Your task to perform on an android device: turn off improve location accuracy Image 0: 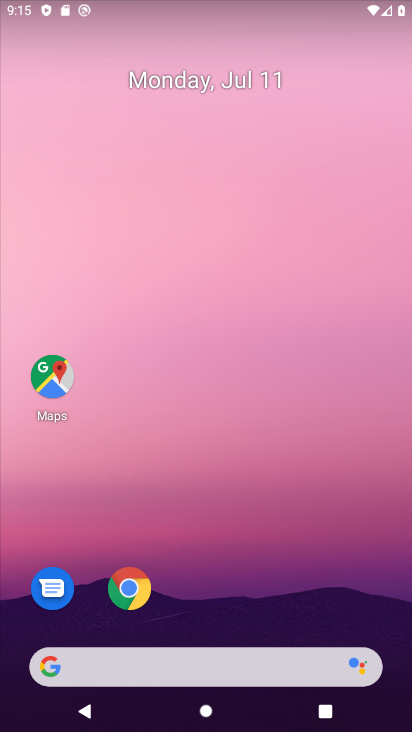
Step 0: drag from (236, 606) to (241, 50)
Your task to perform on an android device: turn off improve location accuracy Image 1: 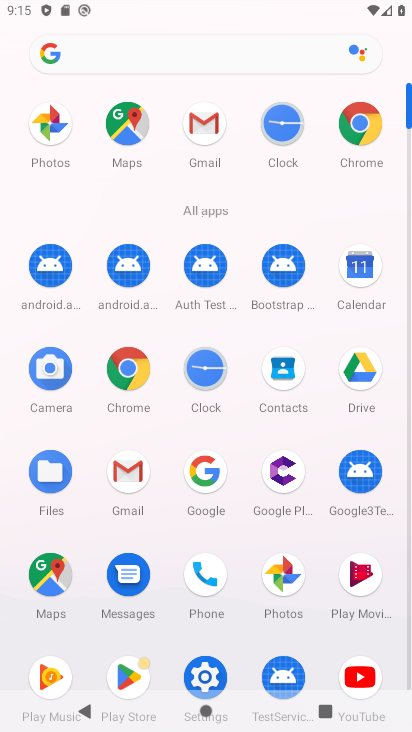
Step 1: click (214, 662)
Your task to perform on an android device: turn off improve location accuracy Image 2: 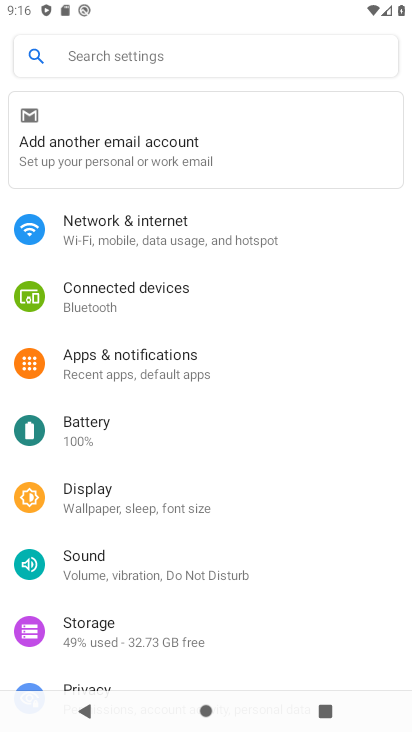
Step 2: drag from (124, 613) to (144, 485)
Your task to perform on an android device: turn off improve location accuracy Image 3: 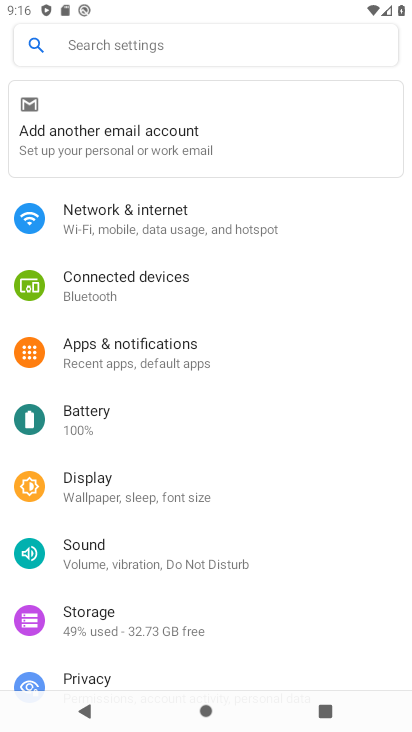
Step 3: drag from (165, 658) to (164, 266)
Your task to perform on an android device: turn off improve location accuracy Image 4: 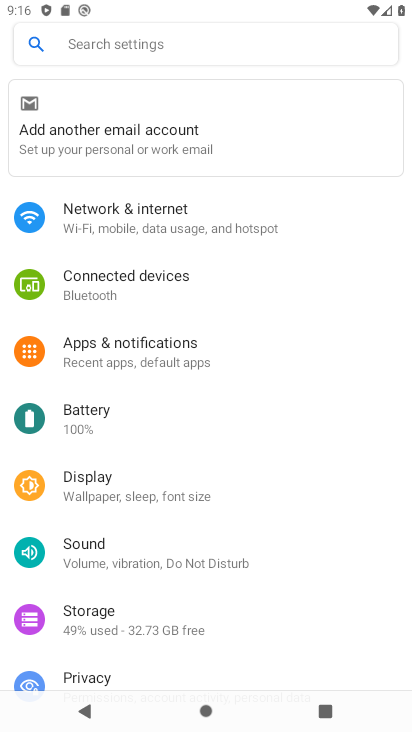
Step 4: drag from (173, 592) to (173, 312)
Your task to perform on an android device: turn off improve location accuracy Image 5: 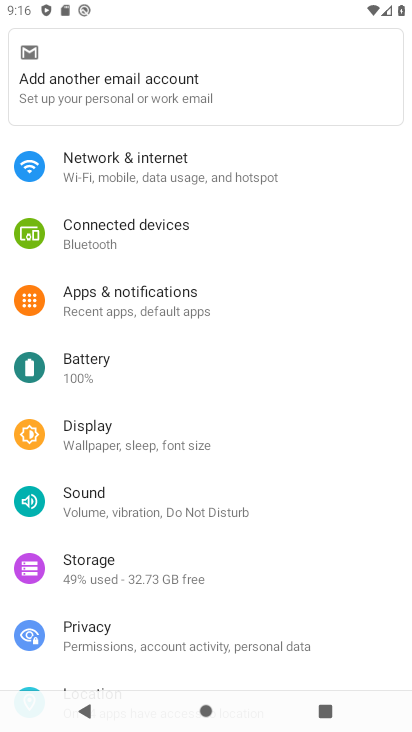
Step 5: drag from (159, 576) to (144, 321)
Your task to perform on an android device: turn off improve location accuracy Image 6: 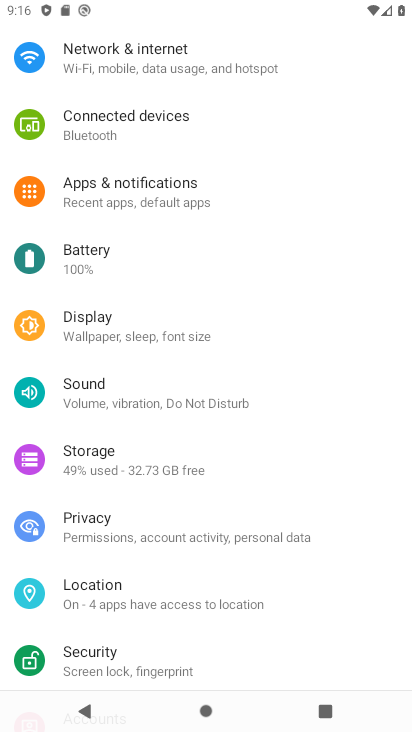
Step 6: click (155, 582)
Your task to perform on an android device: turn off improve location accuracy Image 7: 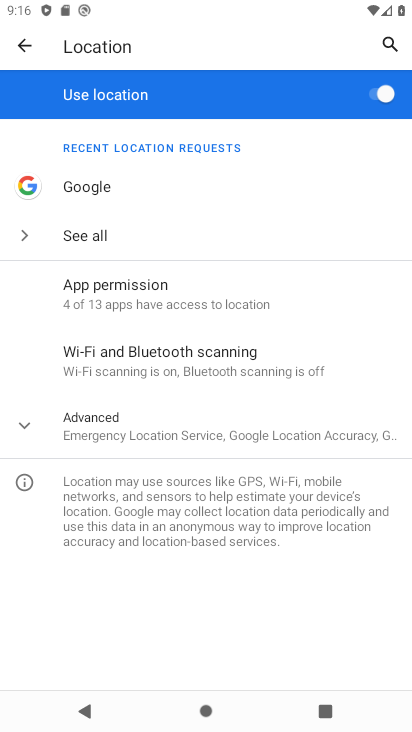
Step 7: click (155, 438)
Your task to perform on an android device: turn off improve location accuracy Image 8: 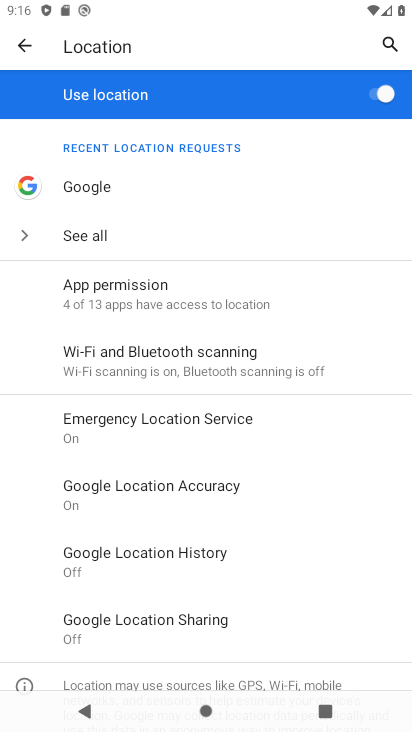
Step 8: click (152, 487)
Your task to perform on an android device: turn off improve location accuracy Image 9: 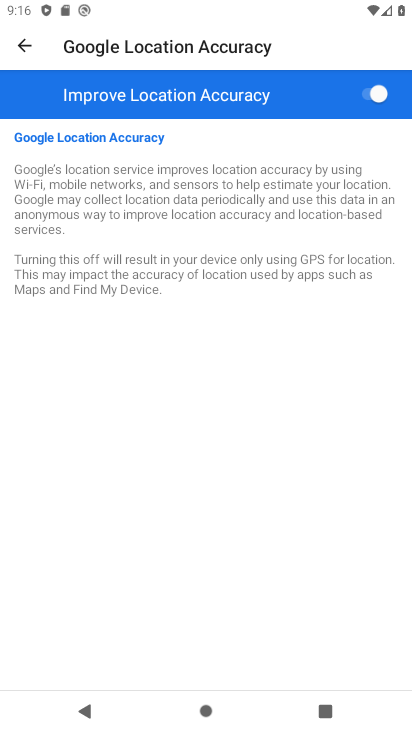
Step 9: click (390, 86)
Your task to perform on an android device: turn off improve location accuracy Image 10: 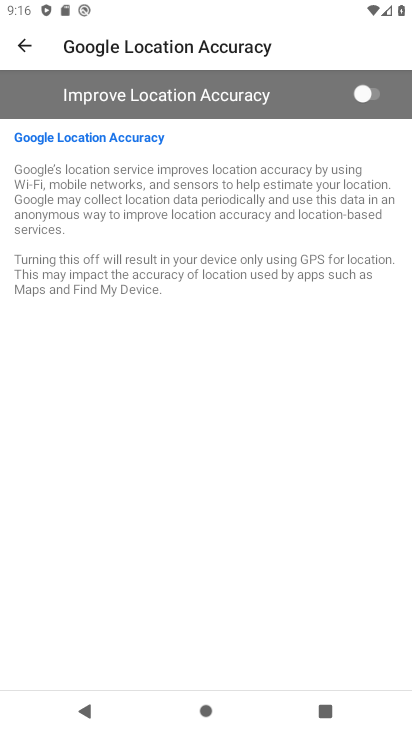
Step 10: task complete